Your task to perform on an android device: check google app version Image 0: 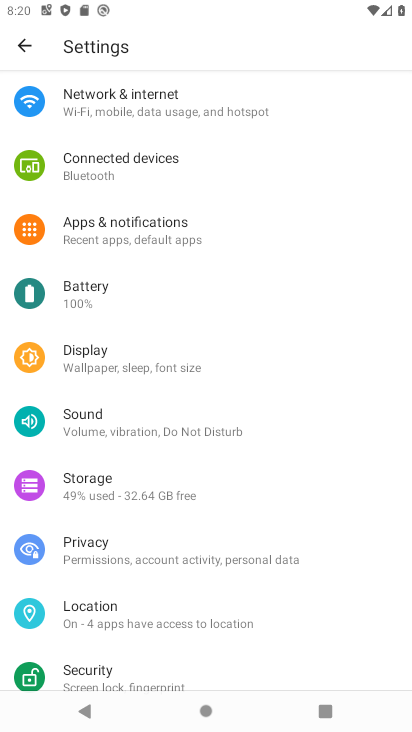
Step 0: press home button
Your task to perform on an android device: check google app version Image 1: 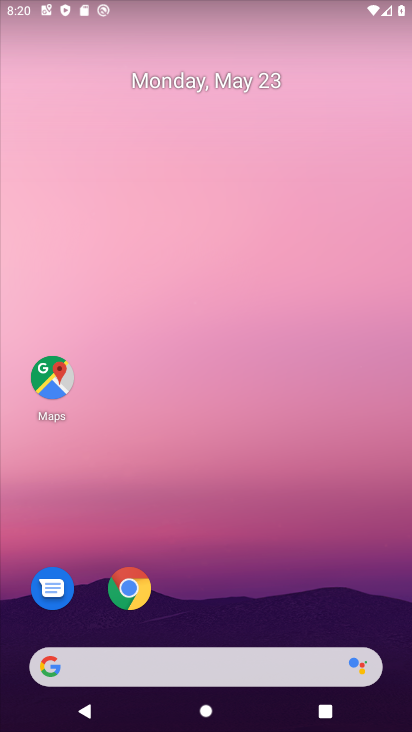
Step 1: drag from (398, 613) to (387, 195)
Your task to perform on an android device: check google app version Image 2: 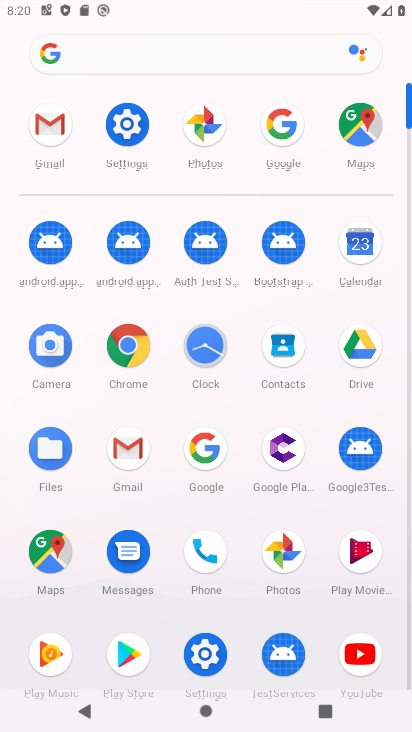
Step 2: click (202, 456)
Your task to perform on an android device: check google app version Image 3: 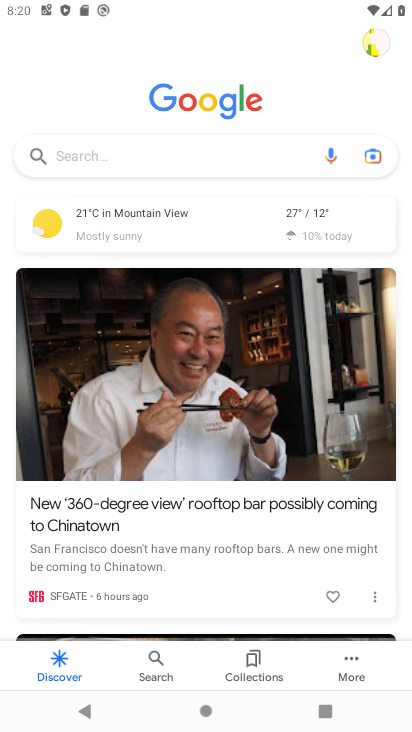
Step 3: click (352, 668)
Your task to perform on an android device: check google app version Image 4: 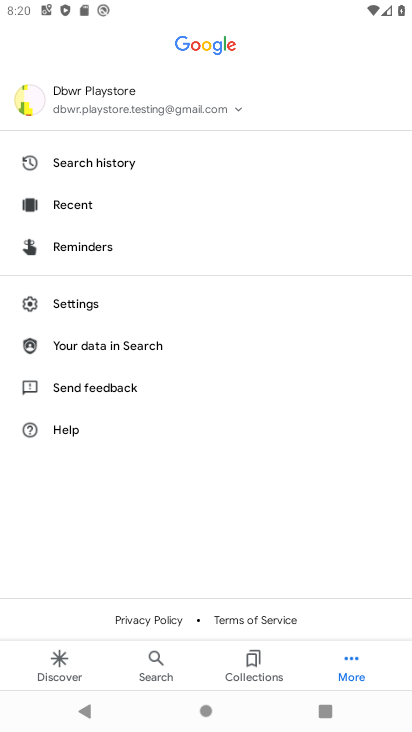
Step 4: click (78, 302)
Your task to perform on an android device: check google app version Image 5: 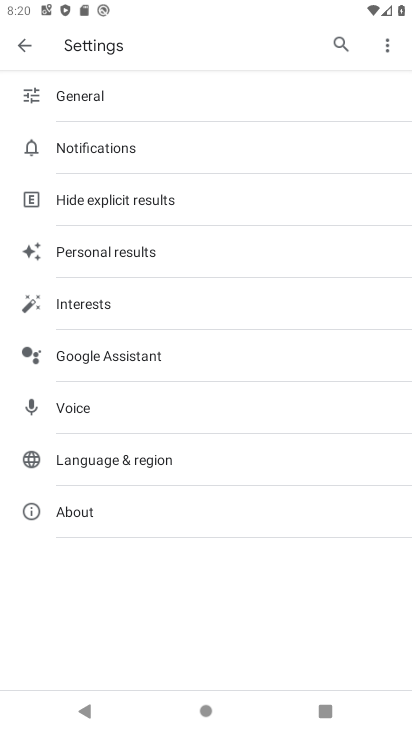
Step 5: click (73, 513)
Your task to perform on an android device: check google app version Image 6: 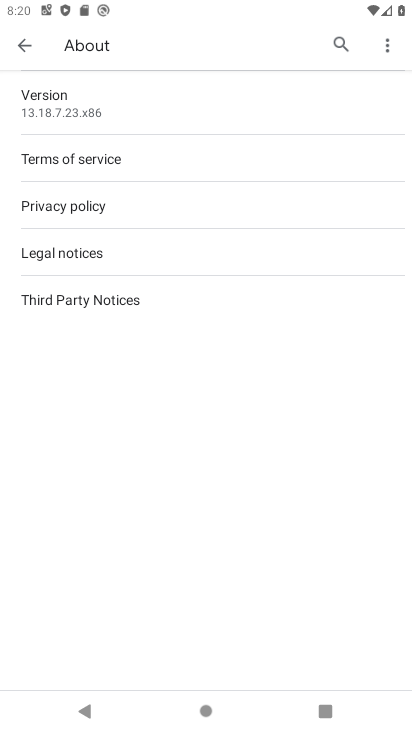
Step 6: click (118, 107)
Your task to perform on an android device: check google app version Image 7: 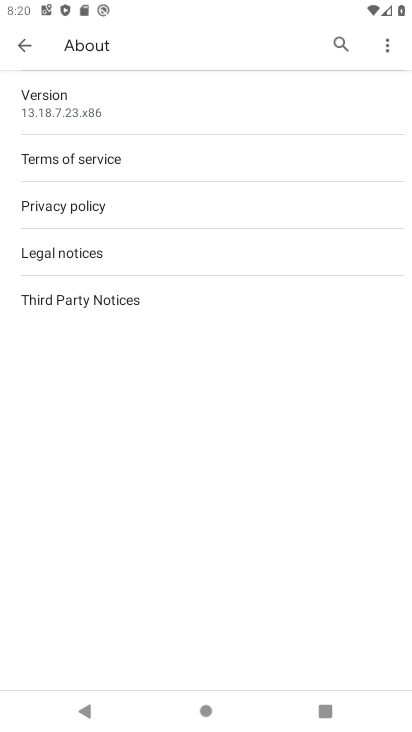
Step 7: task complete